Your task to perform on an android device: open app "Gmail" (install if not already installed), go to login, and select forgot password Image 0: 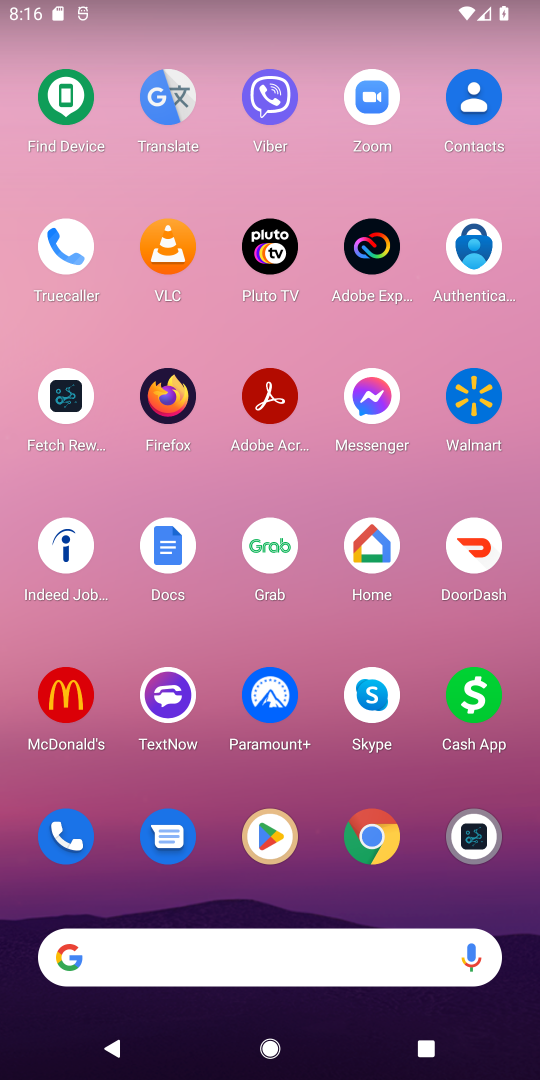
Step 0: press home button
Your task to perform on an android device: open app "Gmail" (install if not already installed), go to login, and select forgot password Image 1: 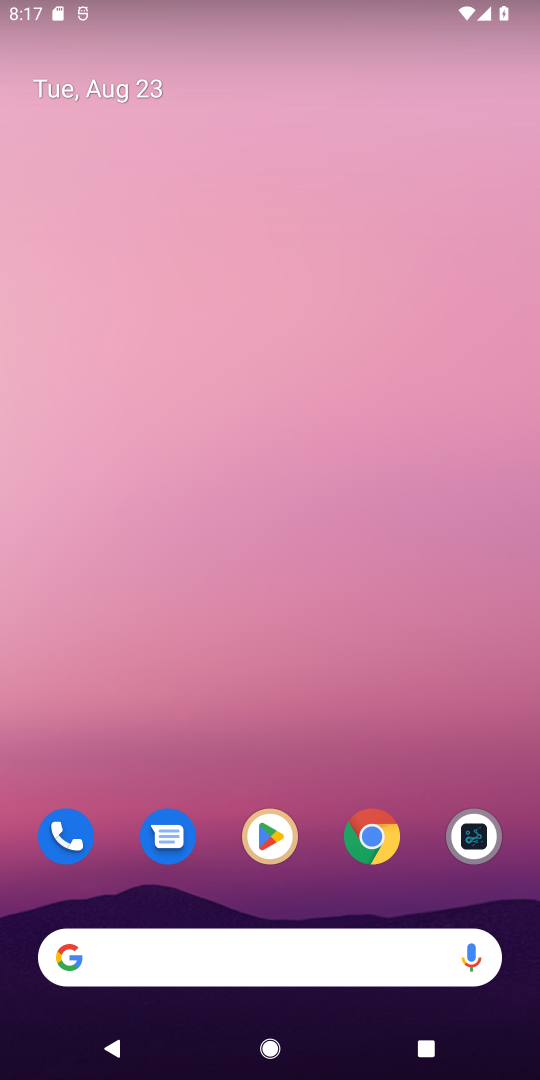
Step 1: click (262, 820)
Your task to perform on an android device: open app "Gmail" (install if not already installed), go to login, and select forgot password Image 2: 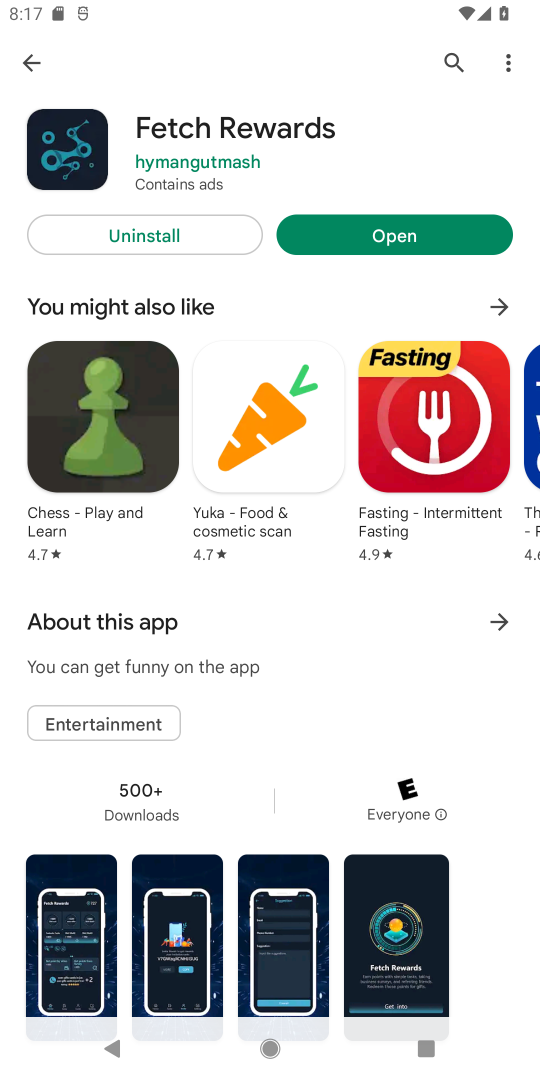
Step 2: click (451, 59)
Your task to perform on an android device: open app "Gmail" (install if not already installed), go to login, and select forgot password Image 3: 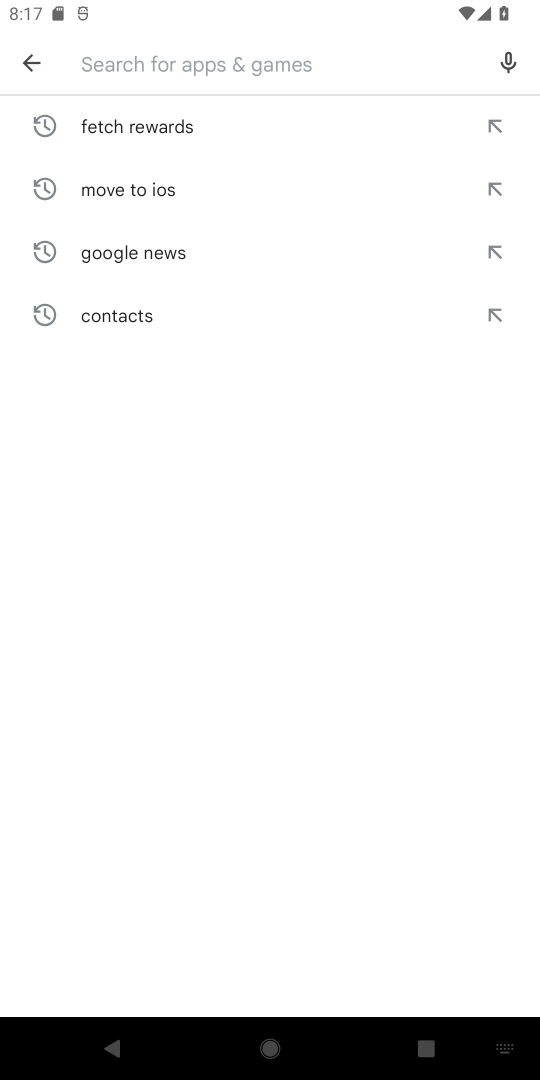
Step 3: type "Gmail"
Your task to perform on an android device: open app "Gmail" (install if not already installed), go to login, and select forgot password Image 4: 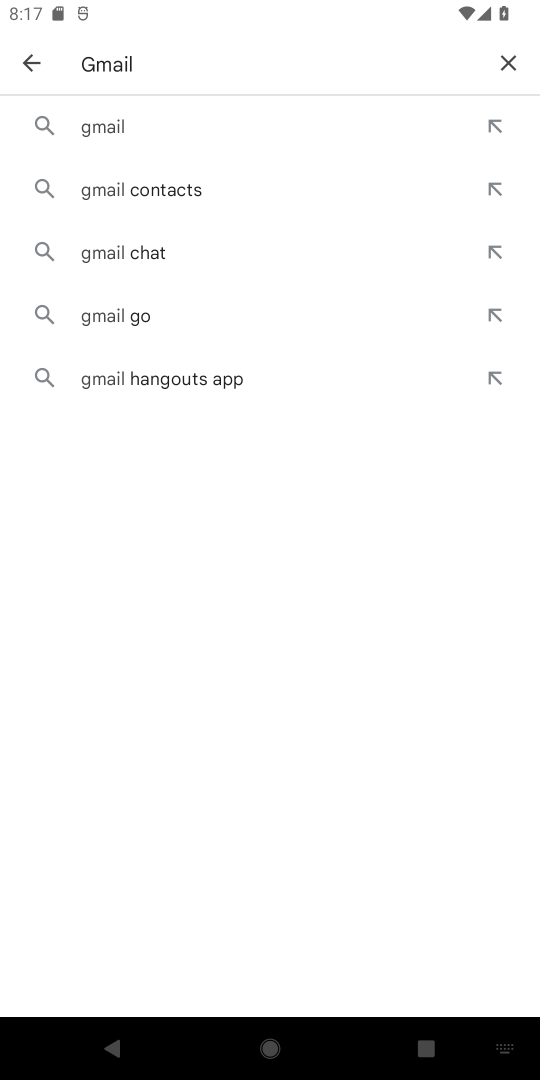
Step 4: click (128, 123)
Your task to perform on an android device: open app "Gmail" (install if not already installed), go to login, and select forgot password Image 5: 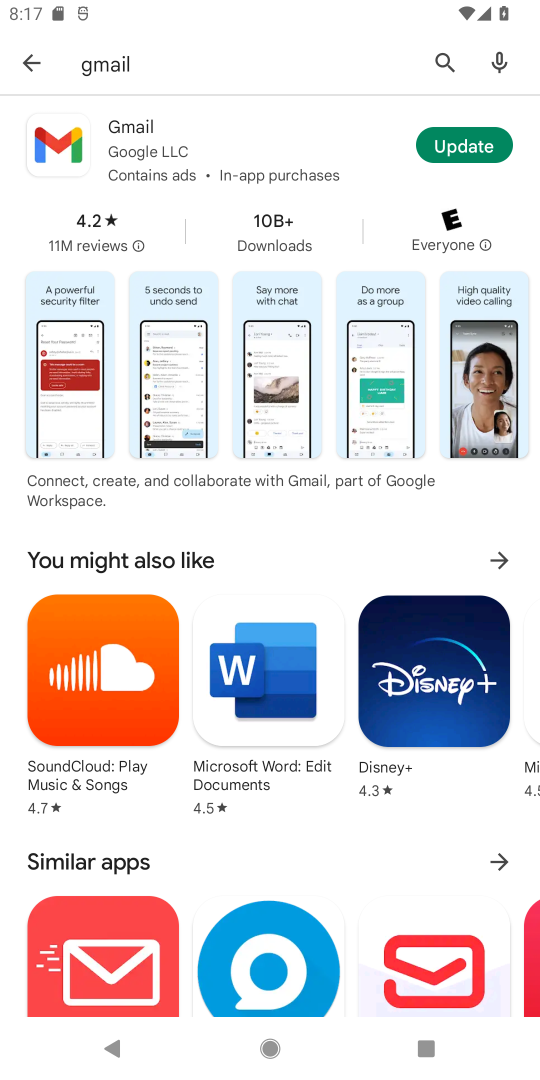
Step 5: click (126, 123)
Your task to perform on an android device: open app "Gmail" (install if not already installed), go to login, and select forgot password Image 6: 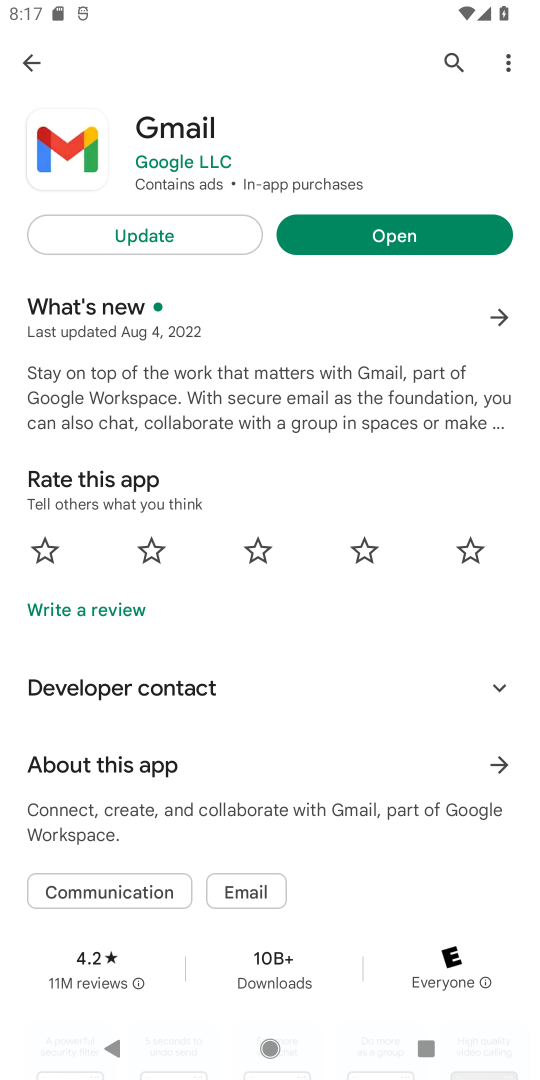
Step 6: click (438, 242)
Your task to perform on an android device: open app "Gmail" (install if not already installed), go to login, and select forgot password Image 7: 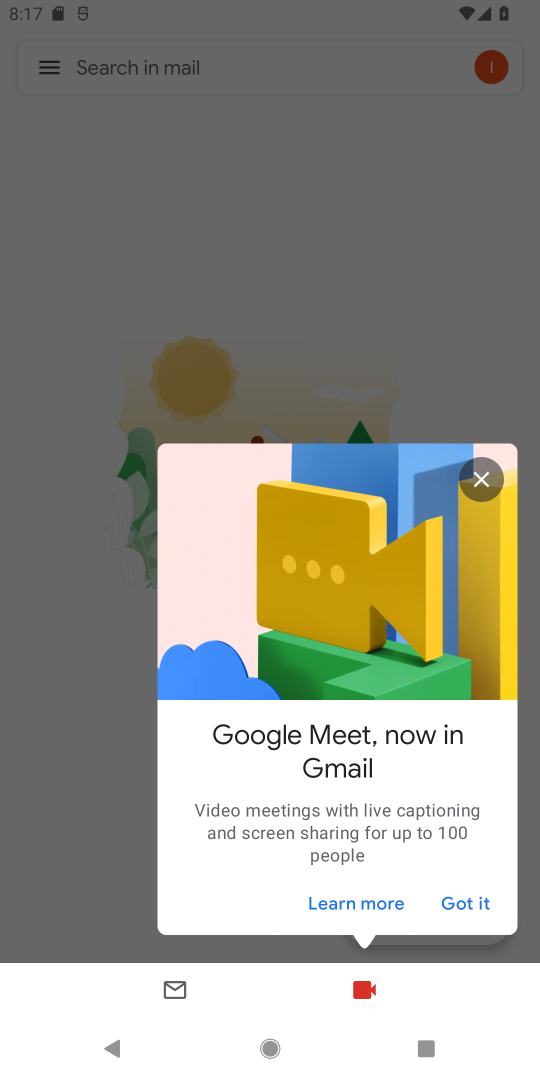
Step 7: click (479, 478)
Your task to perform on an android device: open app "Gmail" (install if not already installed), go to login, and select forgot password Image 8: 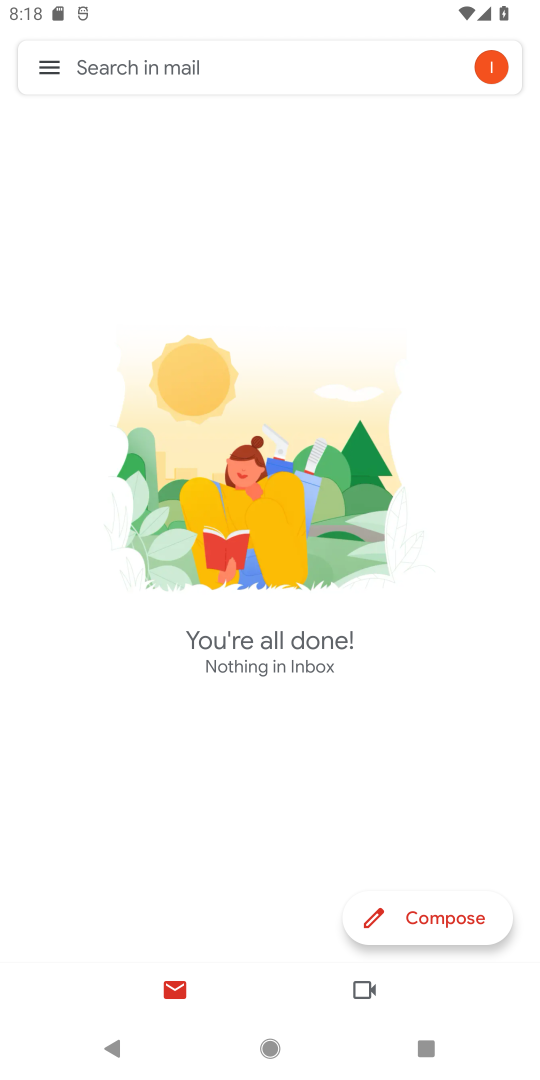
Step 8: task complete